Your task to perform on an android device: Search for a new grill on Home Depot Image 0: 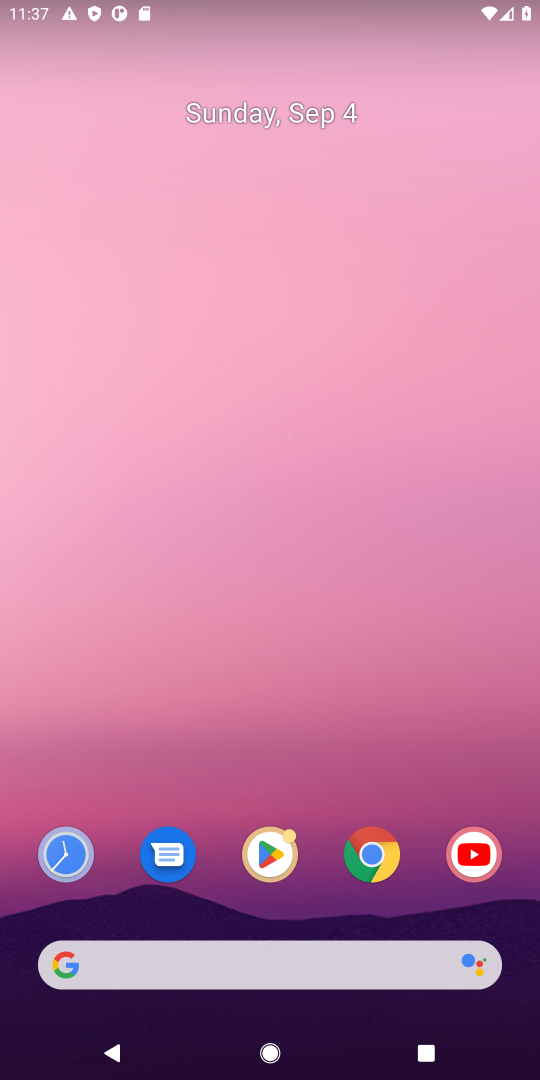
Step 0: press home button
Your task to perform on an android device: Search for a new grill on Home Depot Image 1: 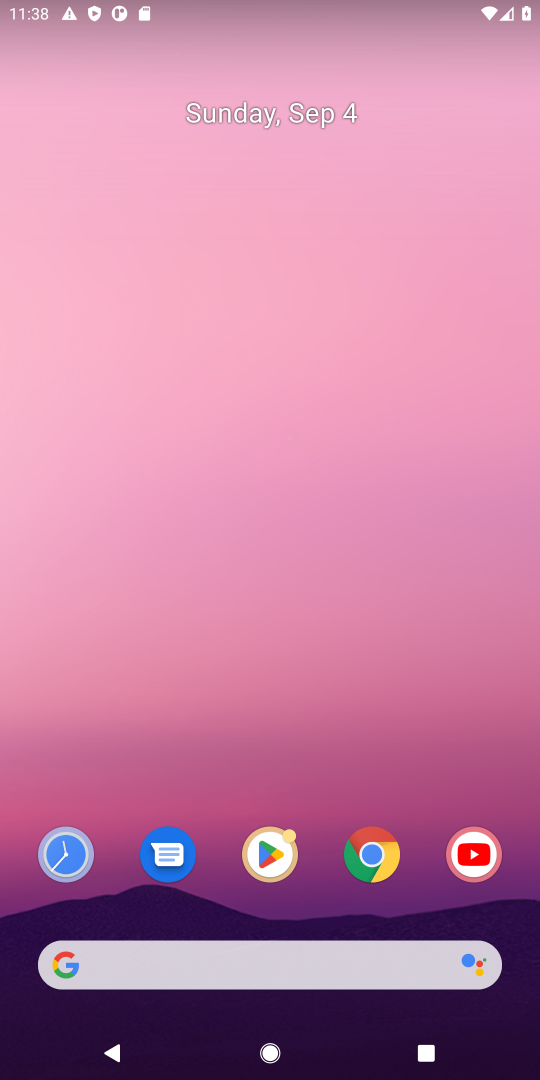
Step 1: click (328, 955)
Your task to perform on an android device: Search for a new grill on Home Depot Image 2: 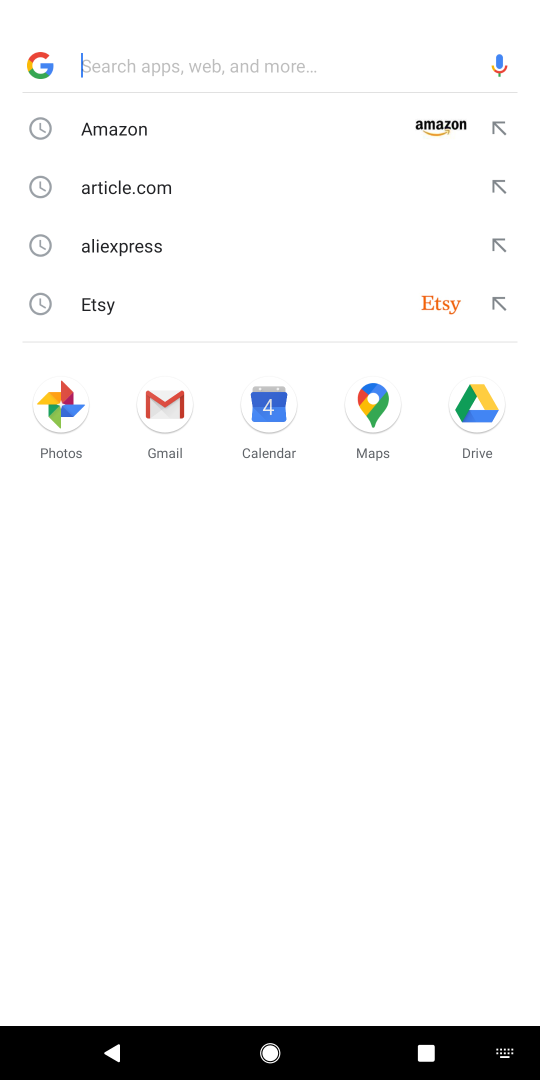
Step 2: press enter
Your task to perform on an android device: Search for a new grill on Home Depot Image 3: 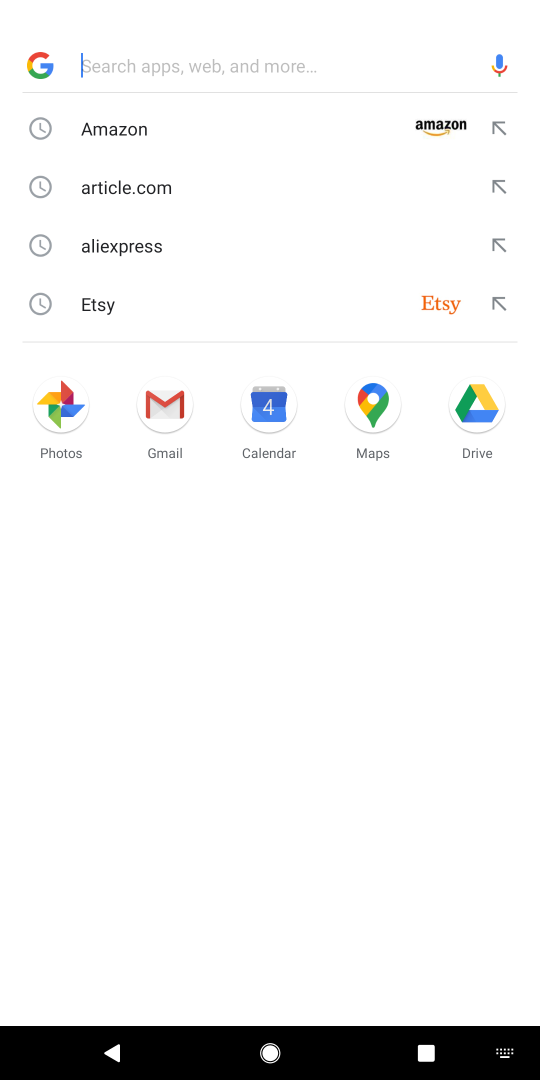
Step 3: type "home depot"
Your task to perform on an android device: Search for a new grill on Home Depot Image 4: 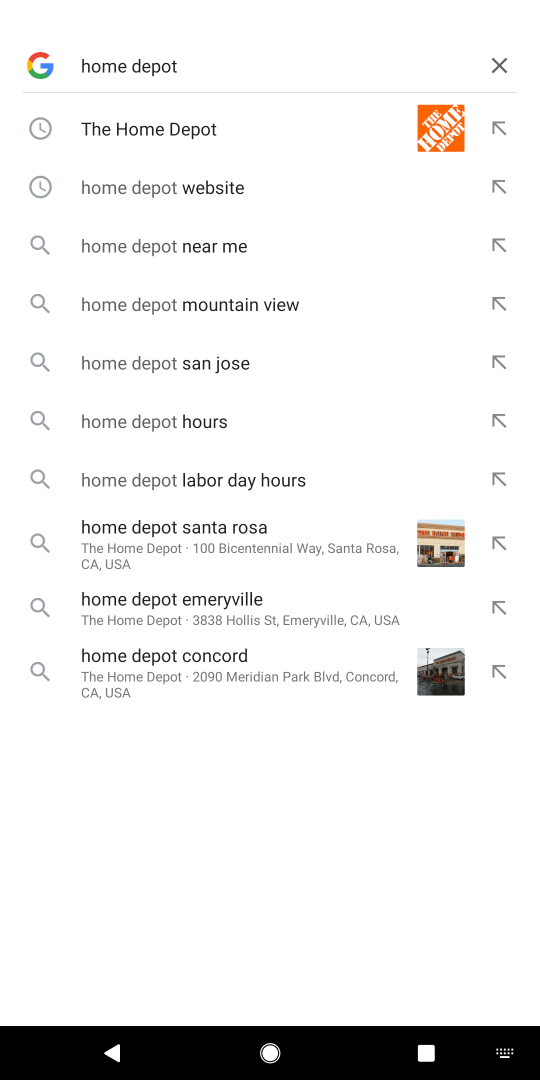
Step 4: click (174, 127)
Your task to perform on an android device: Search for a new grill on Home Depot Image 5: 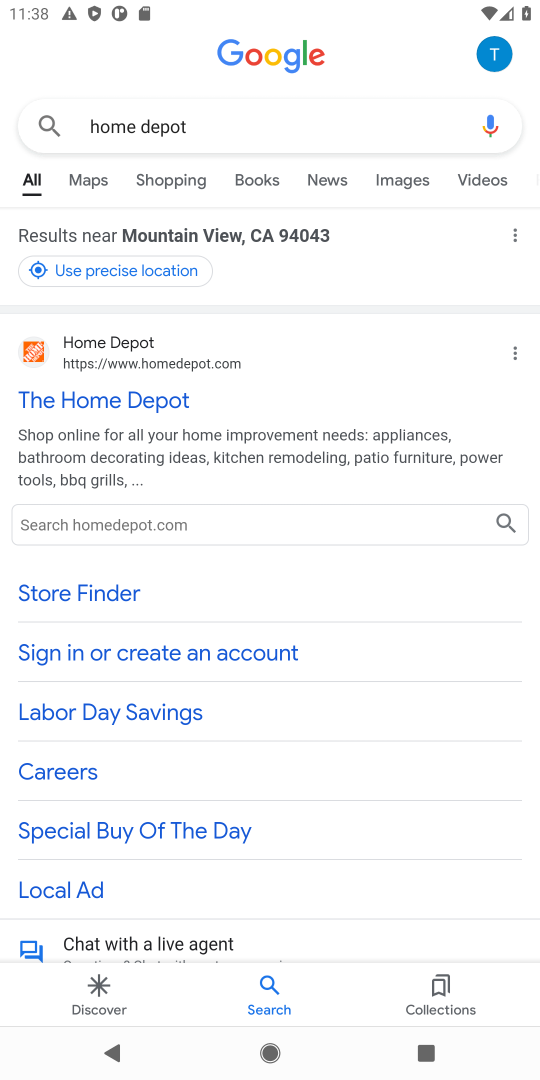
Step 5: click (107, 413)
Your task to perform on an android device: Search for a new grill on Home Depot Image 6: 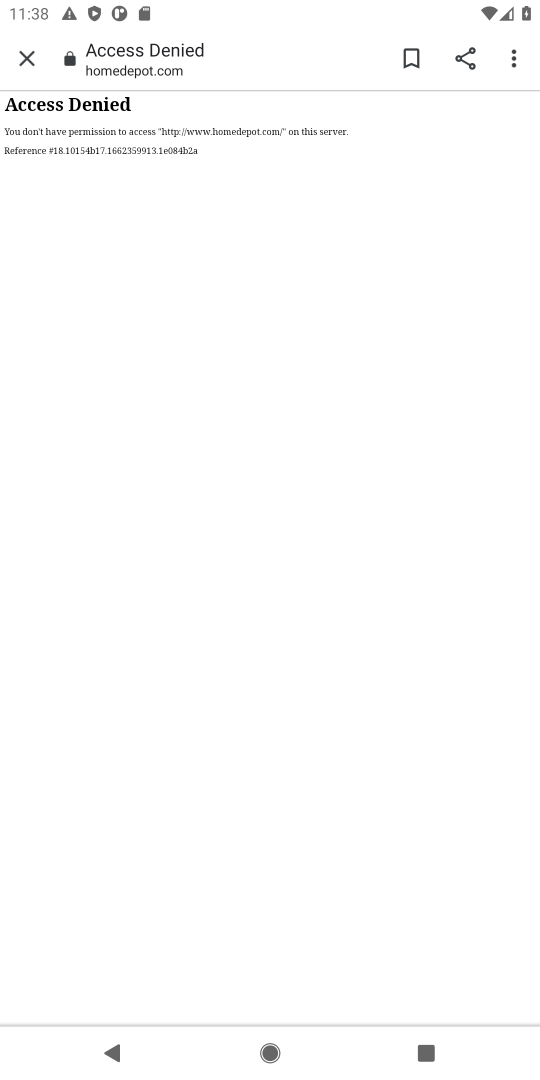
Step 6: task complete